Your task to perform on an android device: turn notification dots off Image 0: 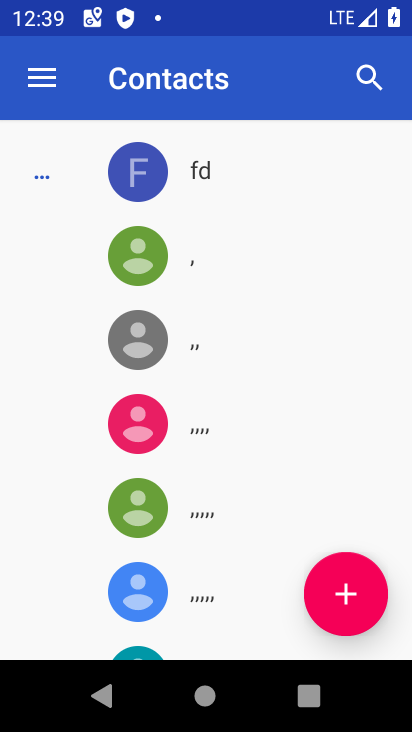
Step 0: press home button
Your task to perform on an android device: turn notification dots off Image 1: 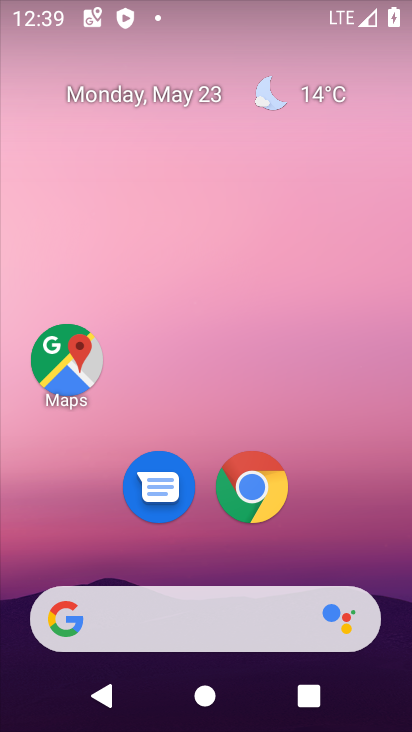
Step 1: drag from (399, 608) to (334, 90)
Your task to perform on an android device: turn notification dots off Image 2: 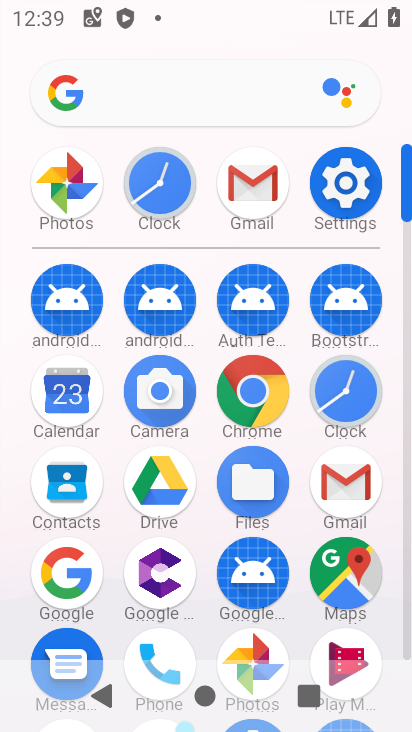
Step 2: click (406, 637)
Your task to perform on an android device: turn notification dots off Image 3: 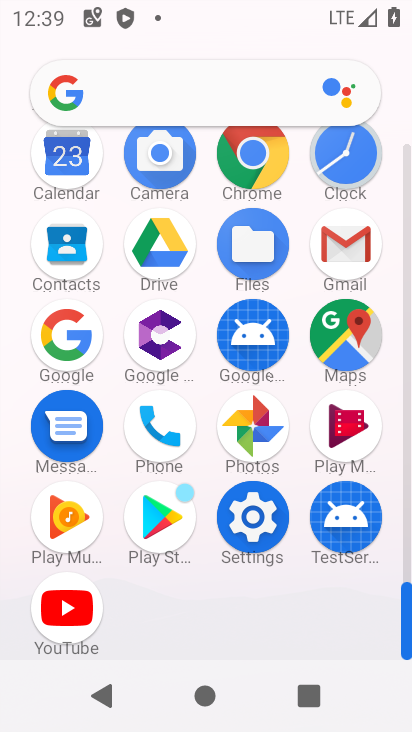
Step 3: click (253, 514)
Your task to perform on an android device: turn notification dots off Image 4: 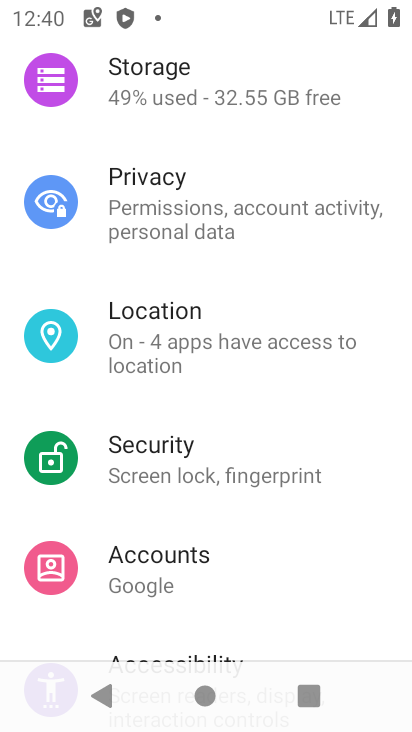
Step 4: drag from (337, 197) to (302, 502)
Your task to perform on an android device: turn notification dots off Image 5: 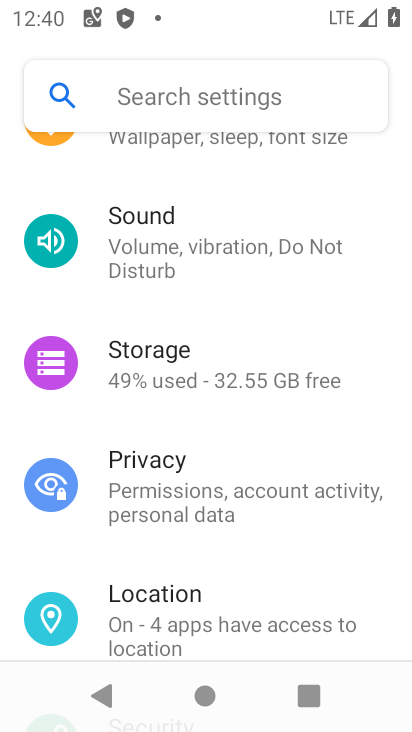
Step 5: drag from (323, 123) to (299, 405)
Your task to perform on an android device: turn notification dots off Image 6: 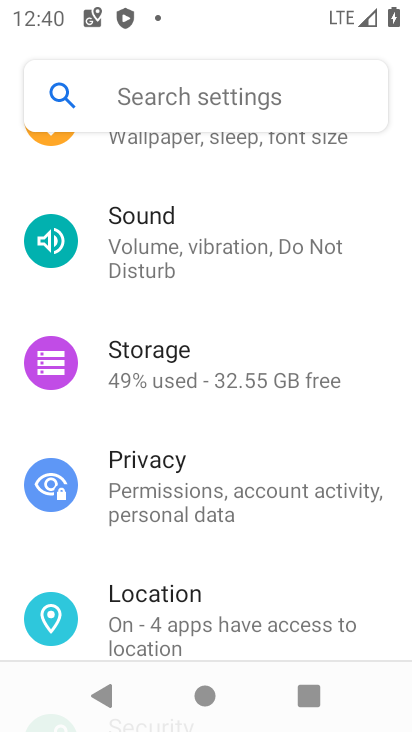
Step 6: drag from (272, 191) to (297, 510)
Your task to perform on an android device: turn notification dots off Image 7: 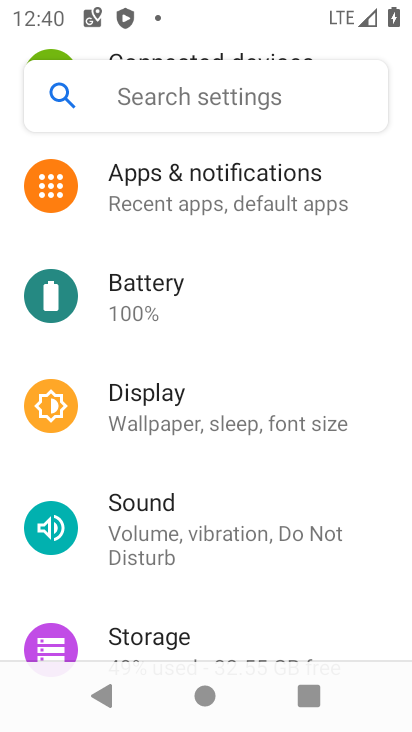
Step 7: click (163, 182)
Your task to perform on an android device: turn notification dots off Image 8: 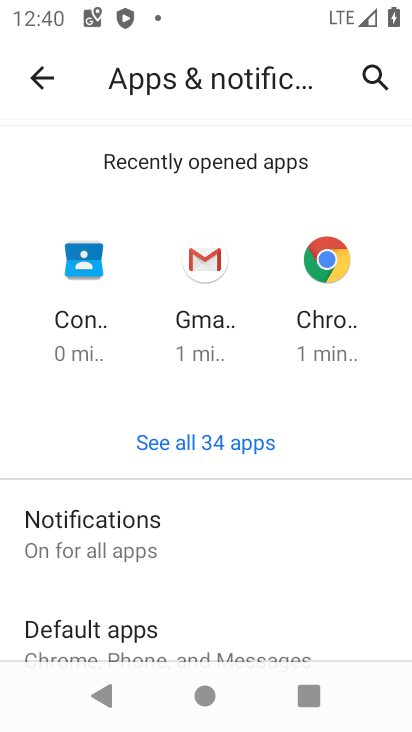
Step 8: click (99, 528)
Your task to perform on an android device: turn notification dots off Image 9: 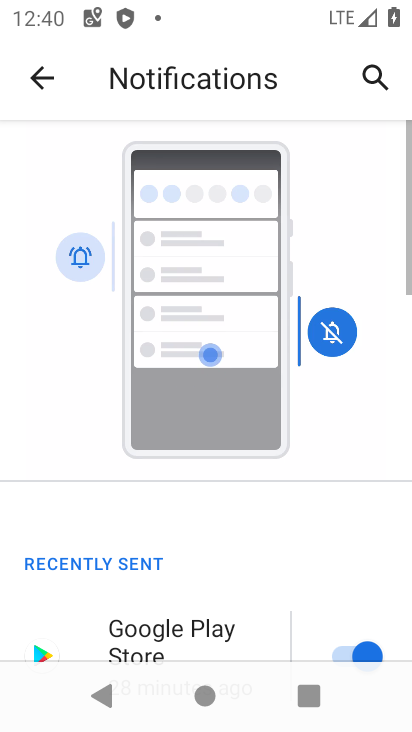
Step 9: drag from (268, 647) to (238, 126)
Your task to perform on an android device: turn notification dots off Image 10: 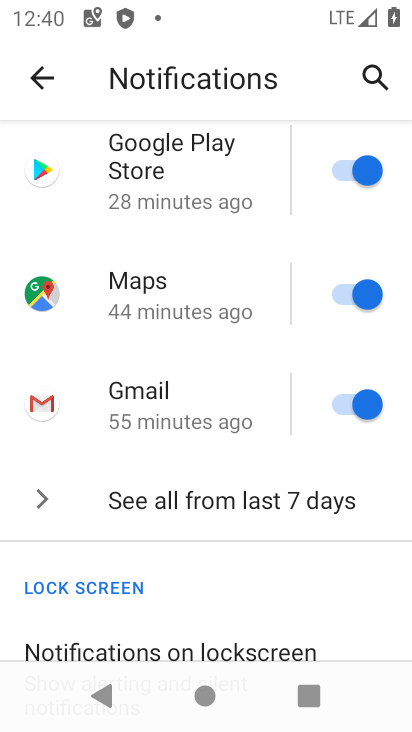
Step 10: drag from (285, 584) to (264, 160)
Your task to perform on an android device: turn notification dots off Image 11: 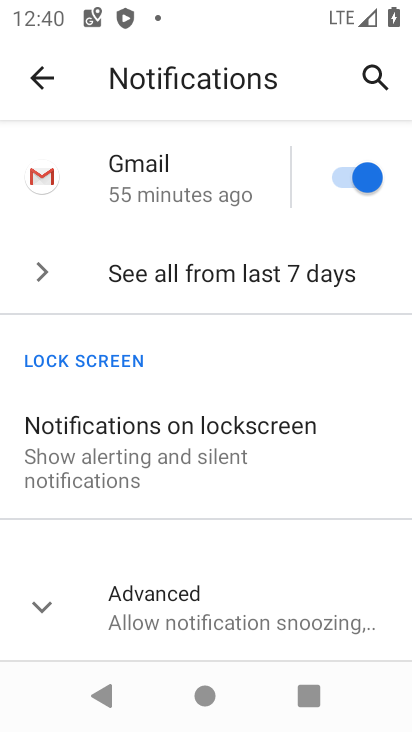
Step 11: click (46, 604)
Your task to perform on an android device: turn notification dots off Image 12: 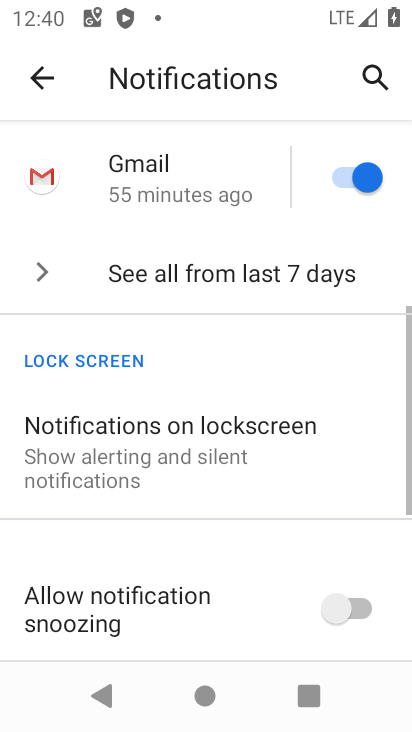
Step 12: drag from (304, 622) to (193, 125)
Your task to perform on an android device: turn notification dots off Image 13: 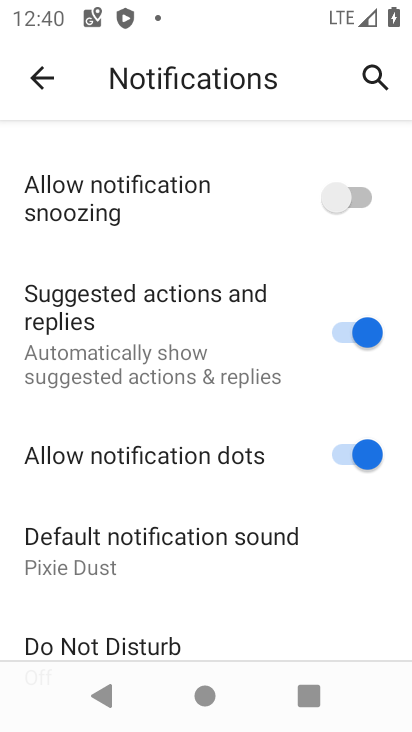
Step 13: click (336, 448)
Your task to perform on an android device: turn notification dots off Image 14: 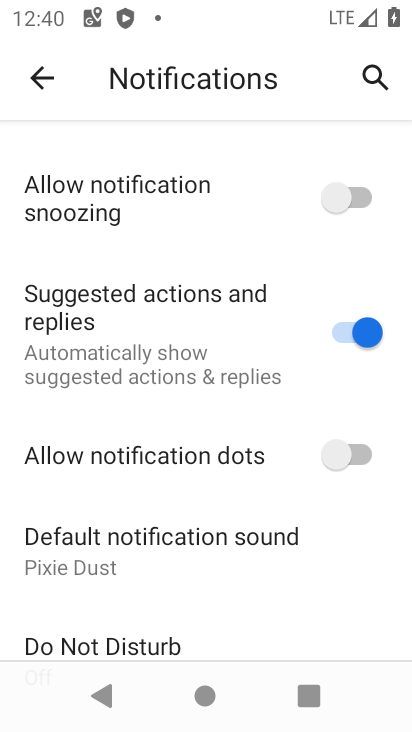
Step 14: task complete